Your task to perform on an android device: turn off translation in the chrome app Image 0: 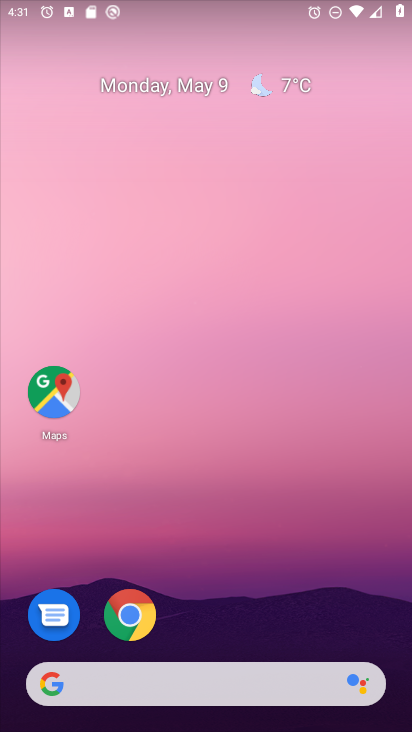
Step 0: click (129, 612)
Your task to perform on an android device: turn off translation in the chrome app Image 1: 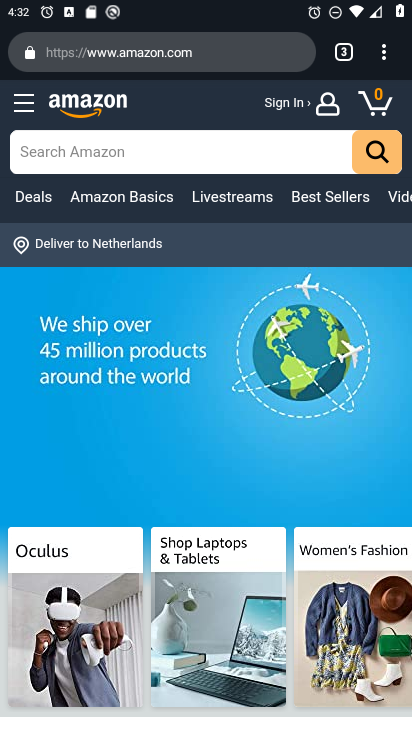
Step 1: click (385, 52)
Your task to perform on an android device: turn off translation in the chrome app Image 2: 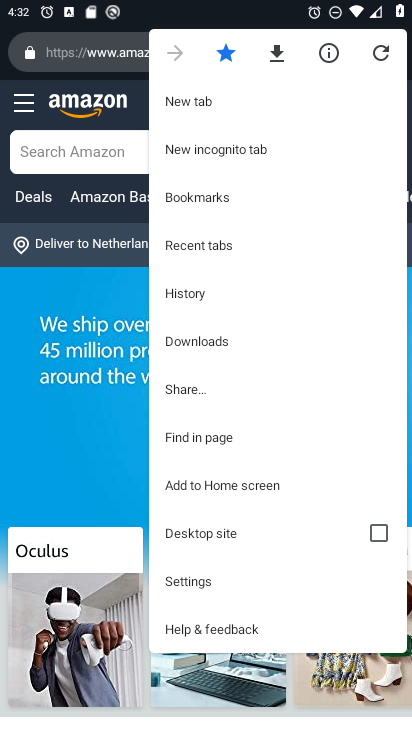
Step 2: click (180, 576)
Your task to perform on an android device: turn off translation in the chrome app Image 3: 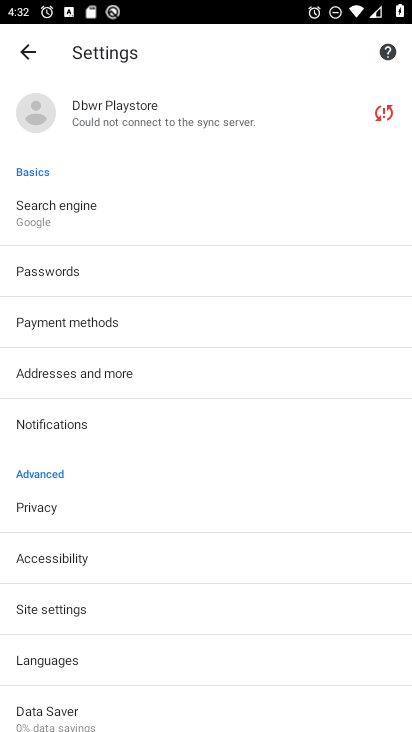
Step 3: click (48, 658)
Your task to perform on an android device: turn off translation in the chrome app Image 4: 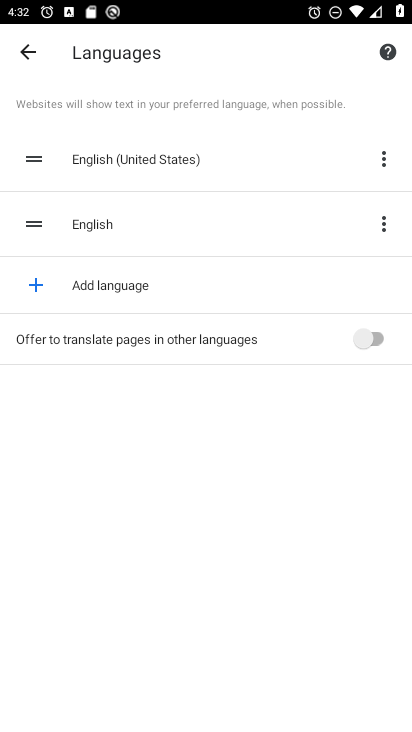
Step 4: task complete